Your task to perform on an android device: check android version Image 0: 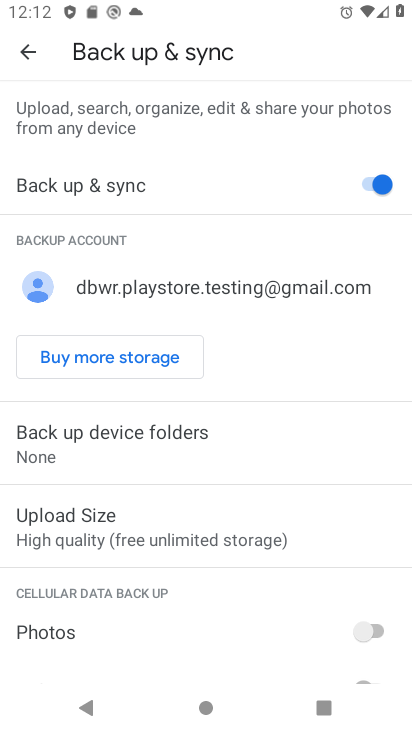
Step 0: press home button
Your task to perform on an android device: check android version Image 1: 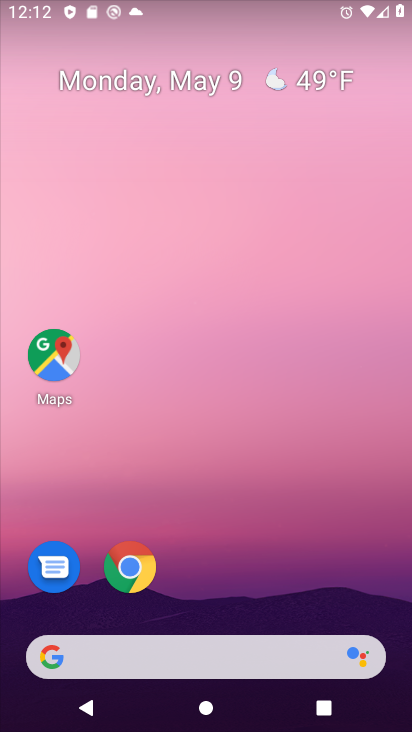
Step 1: drag from (222, 728) to (223, 200)
Your task to perform on an android device: check android version Image 2: 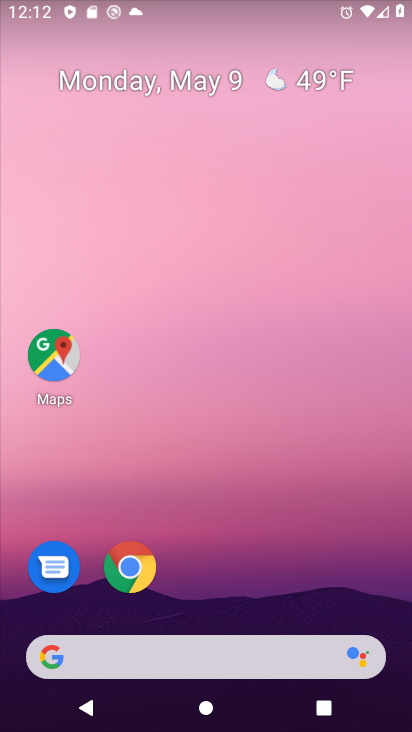
Step 2: drag from (223, 710) to (231, 127)
Your task to perform on an android device: check android version Image 3: 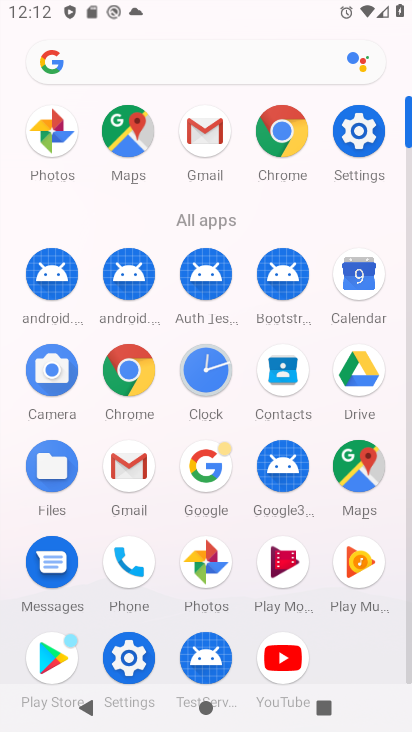
Step 3: click (355, 130)
Your task to perform on an android device: check android version Image 4: 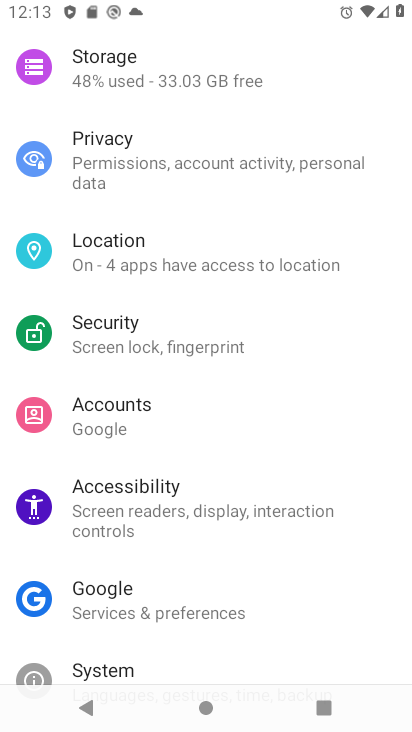
Step 4: drag from (160, 665) to (147, 309)
Your task to perform on an android device: check android version Image 5: 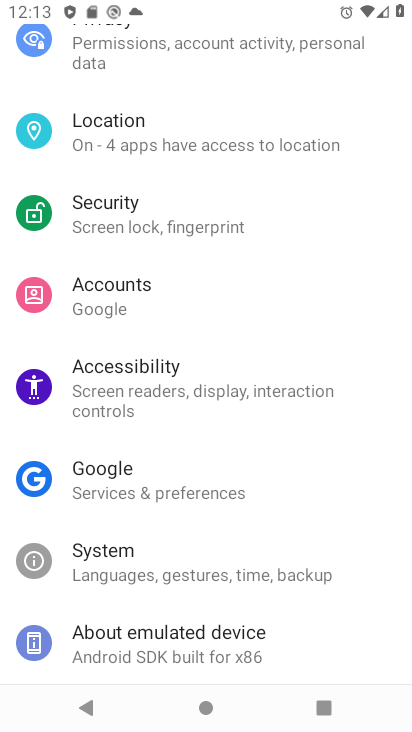
Step 5: click (148, 641)
Your task to perform on an android device: check android version Image 6: 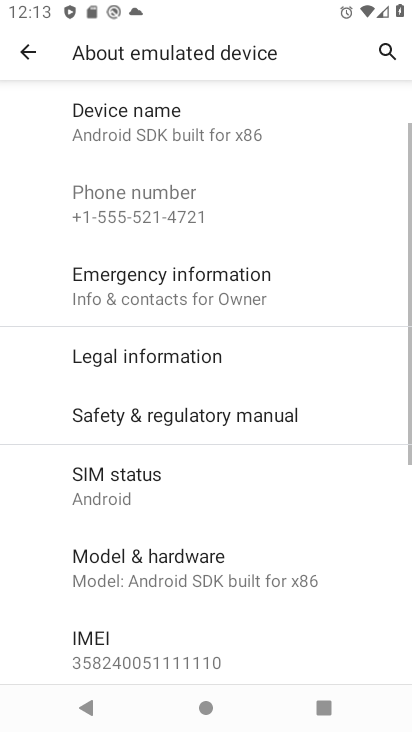
Step 6: drag from (146, 650) to (150, 268)
Your task to perform on an android device: check android version Image 7: 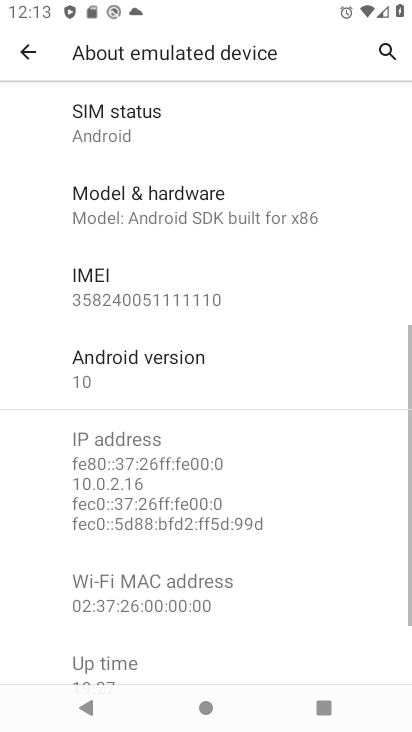
Step 7: click (122, 358)
Your task to perform on an android device: check android version Image 8: 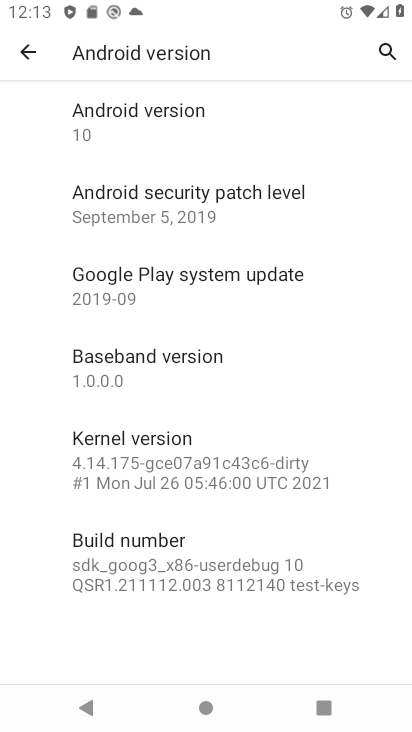
Step 8: task complete